Your task to perform on an android device: turn off smart reply in the gmail app Image 0: 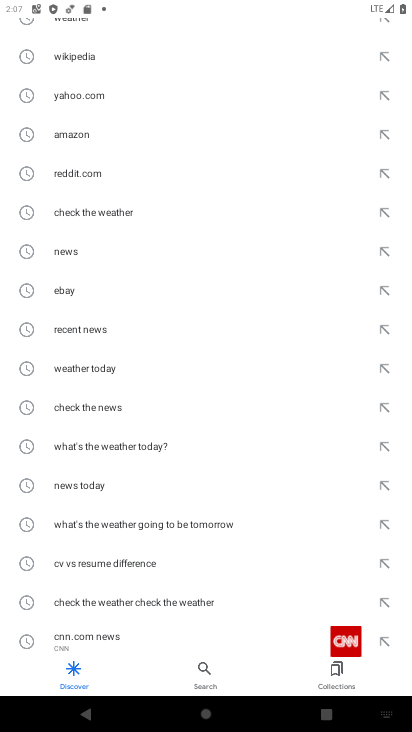
Step 0: task impossible